Your task to perform on an android device: Open the stopwatch Image 0: 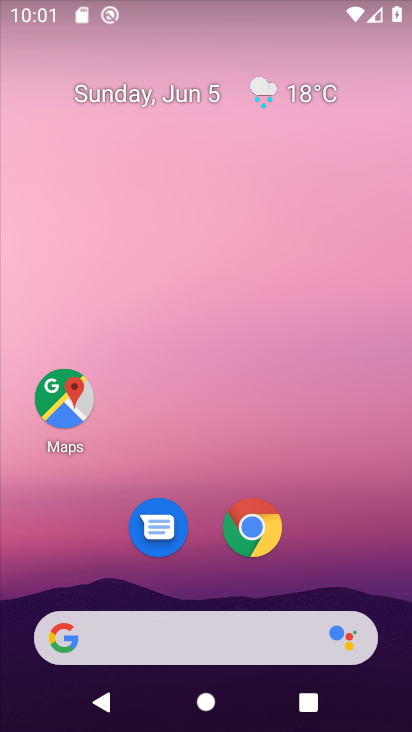
Step 0: drag from (21, 589) to (337, 60)
Your task to perform on an android device: Open the stopwatch Image 1: 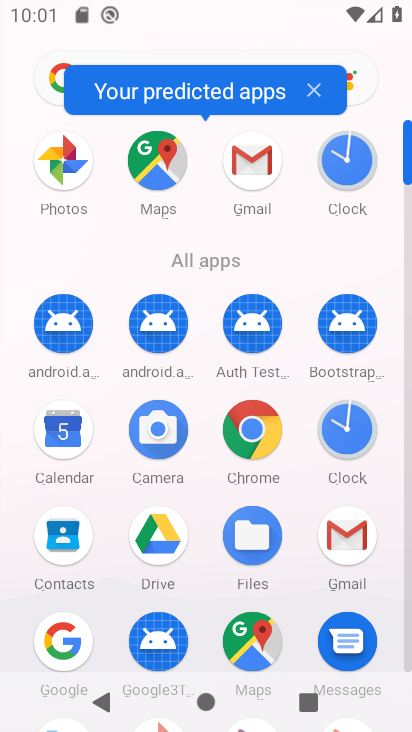
Step 1: click (346, 176)
Your task to perform on an android device: Open the stopwatch Image 2: 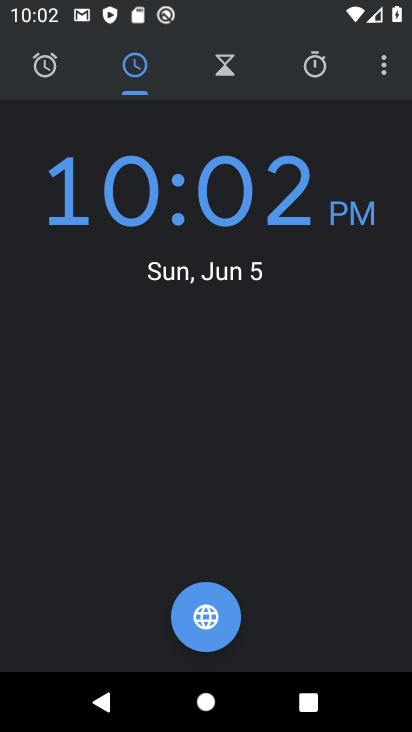
Step 2: click (312, 74)
Your task to perform on an android device: Open the stopwatch Image 3: 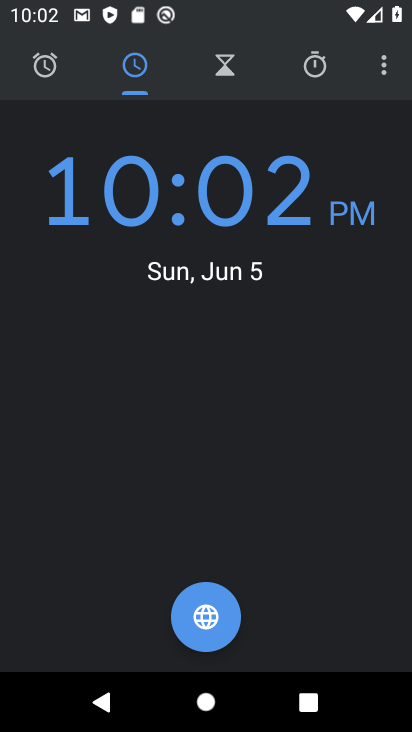
Step 3: click (323, 59)
Your task to perform on an android device: Open the stopwatch Image 4: 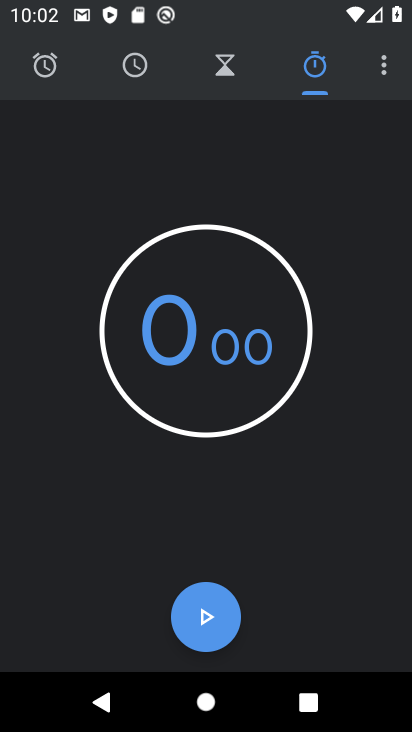
Step 4: task complete